Your task to perform on an android device: turn off translation in the chrome app Image 0: 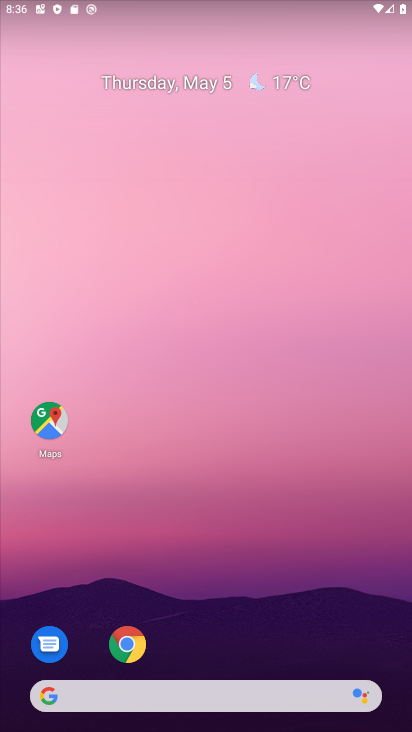
Step 0: click (122, 639)
Your task to perform on an android device: turn off translation in the chrome app Image 1: 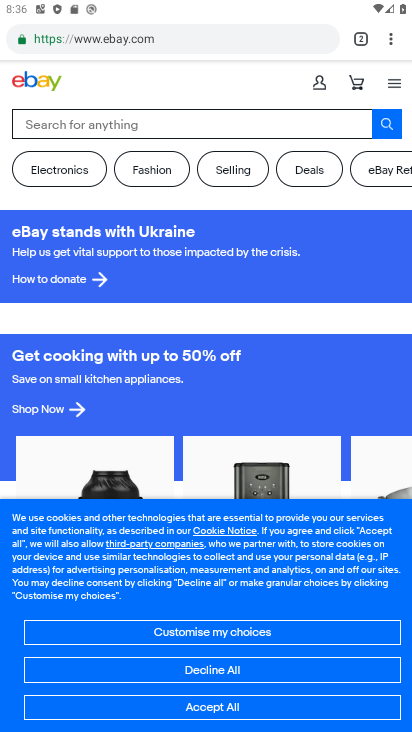
Step 1: click (390, 42)
Your task to perform on an android device: turn off translation in the chrome app Image 2: 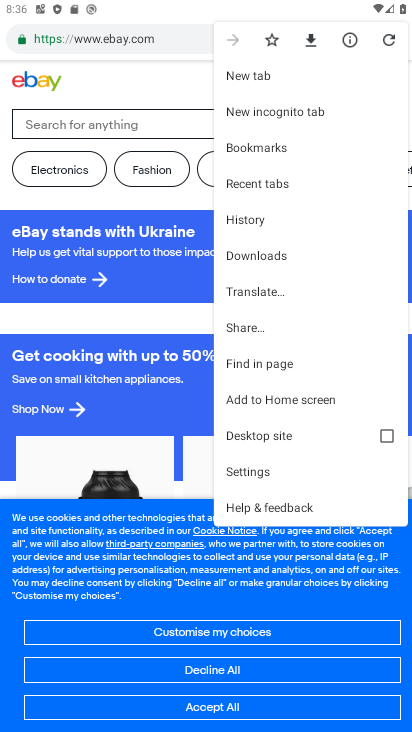
Step 2: click (300, 473)
Your task to perform on an android device: turn off translation in the chrome app Image 3: 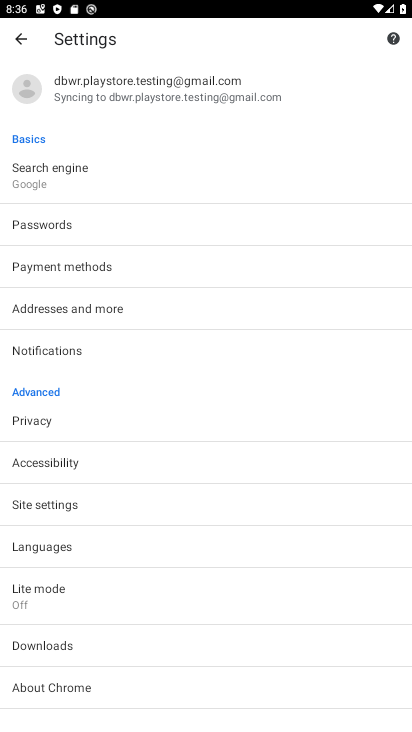
Step 3: click (250, 556)
Your task to perform on an android device: turn off translation in the chrome app Image 4: 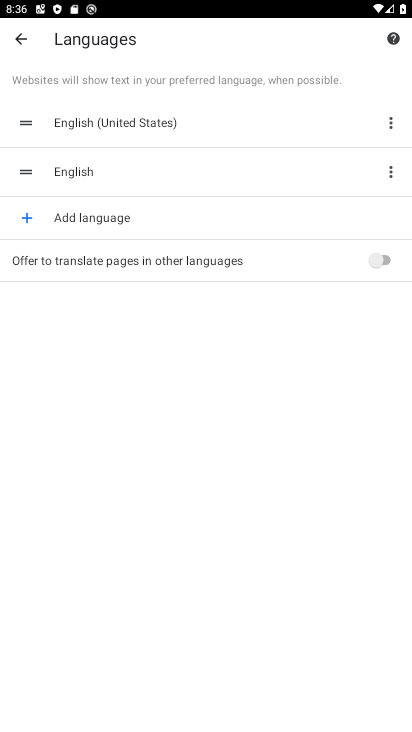
Step 4: task complete